Your task to perform on an android device: Open calendar and show me the third week of next month Image 0: 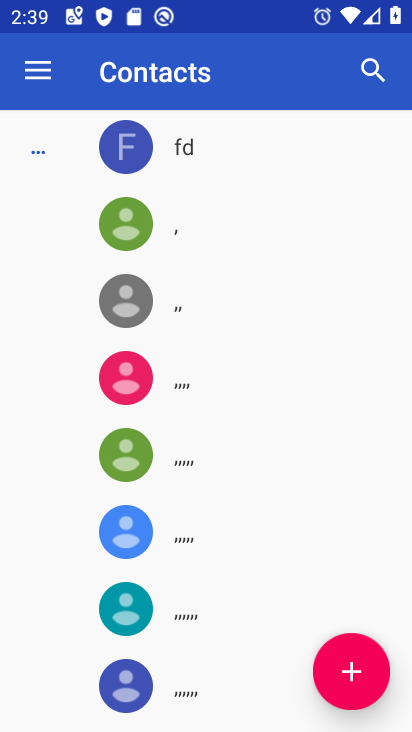
Step 0: press home button
Your task to perform on an android device: Open calendar and show me the third week of next month Image 1: 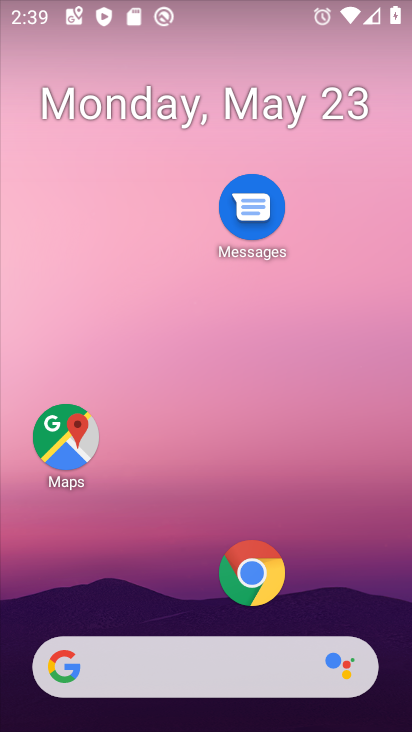
Step 1: drag from (331, 611) to (309, 16)
Your task to perform on an android device: Open calendar and show me the third week of next month Image 2: 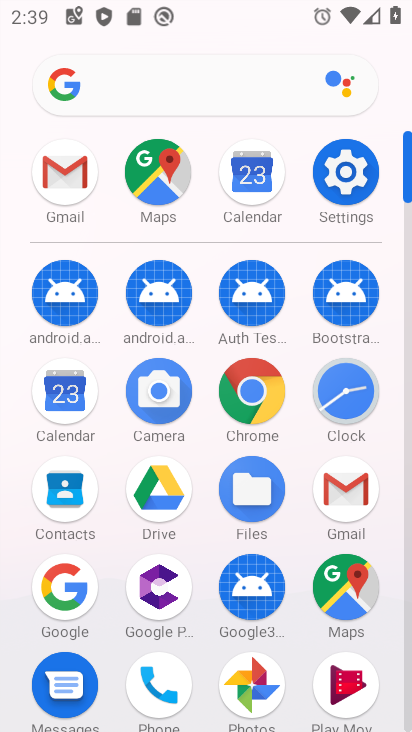
Step 2: click (59, 401)
Your task to perform on an android device: Open calendar and show me the third week of next month Image 3: 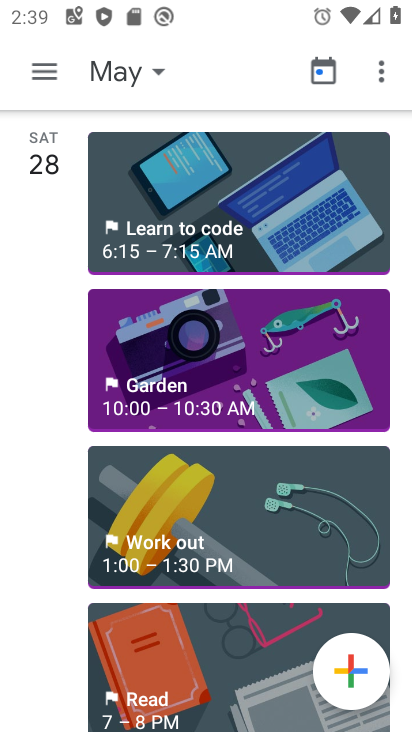
Step 3: click (163, 78)
Your task to perform on an android device: Open calendar and show me the third week of next month Image 4: 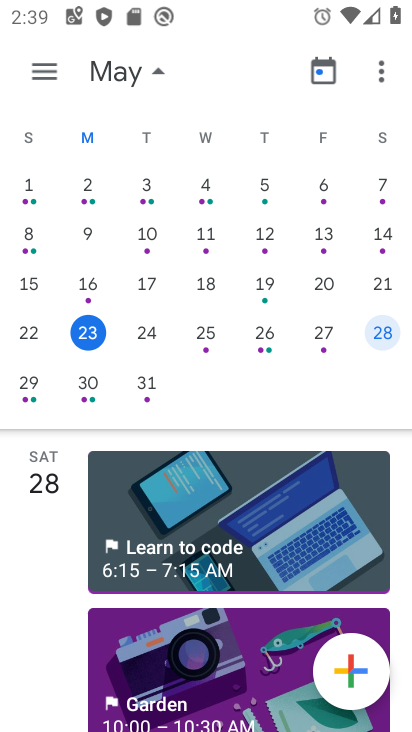
Step 4: drag from (307, 325) to (16, 359)
Your task to perform on an android device: Open calendar and show me the third week of next month Image 5: 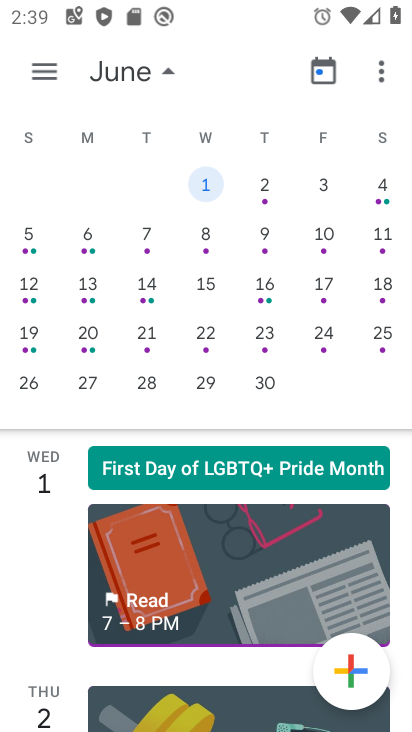
Step 5: click (332, 288)
Your task to perform on an android device: Open calendar and show me the third week of next month Image 6: 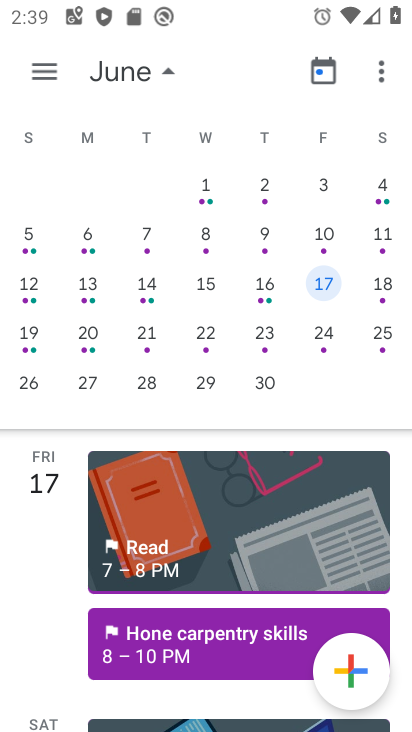
Step 6: click (59, 80)
Your task to perform on an android device: Open calendar and show me the third week of next month Image 7: 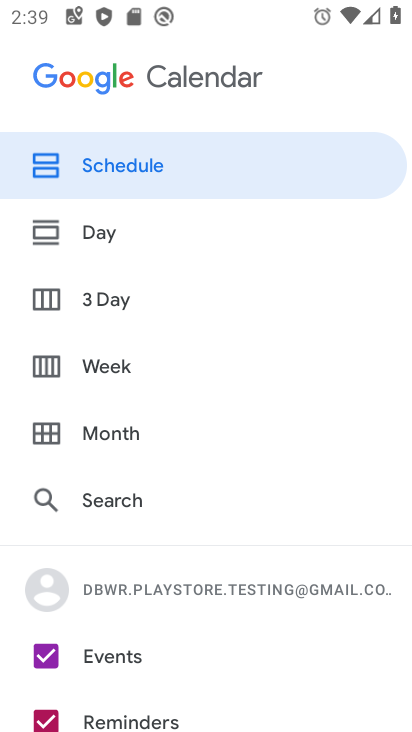
Step 7: click (132, 372)
Your task to perform on an android device: Open calendar and show me the third week of next month Image 8: 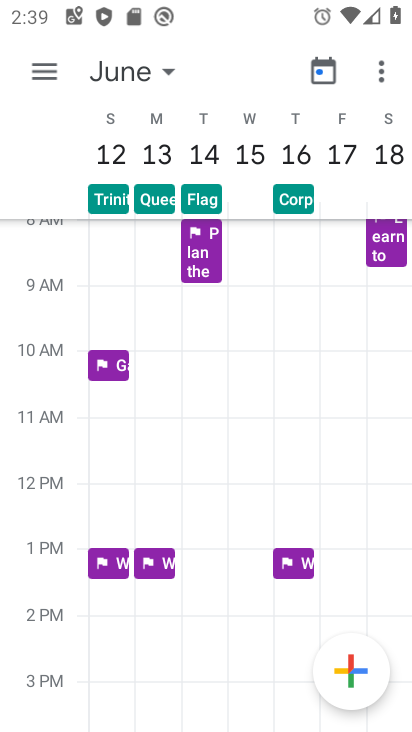
Step 8: task complete